Your task to perform on an android device: toggle sleep mode Image 0: 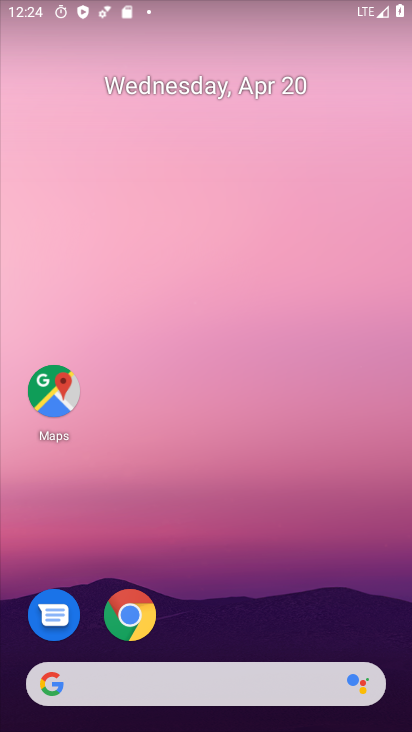
Step 0: drag from (169, 661) to (295, 50)
Your task to perform on an android device: toggle sleep mode Image 1: 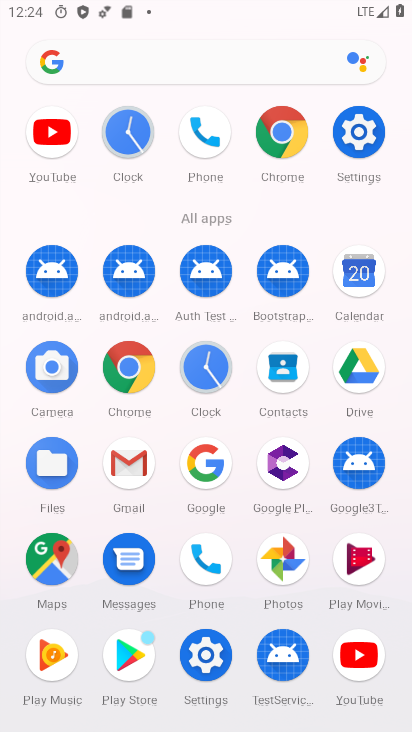
Step 1: click (207, 659)
Your task to perform on an android device: toggle sleep mode Image 2: 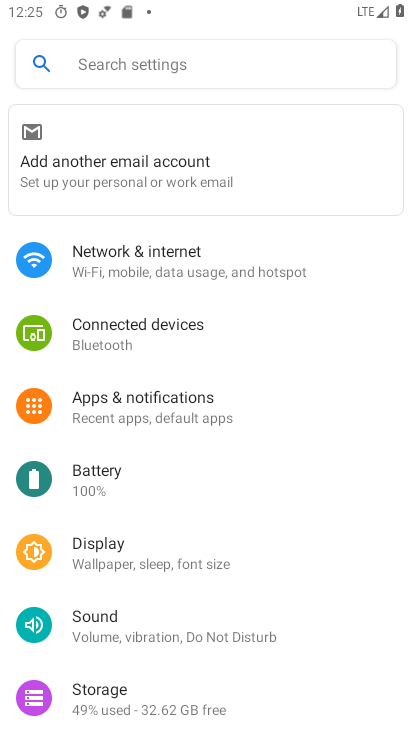
Step 2: click (140, 549)
Your task to perform on an android device: toggle sleep mode Image 3: 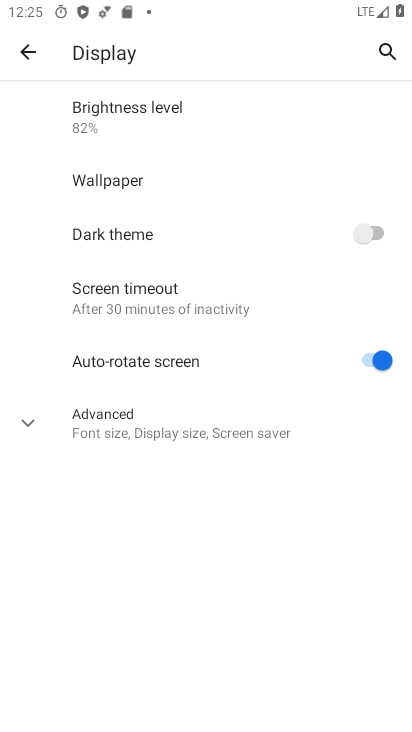
Step 3: click (142, 416)
Your task to perform on an android device: toggle sleep mode Image 4: 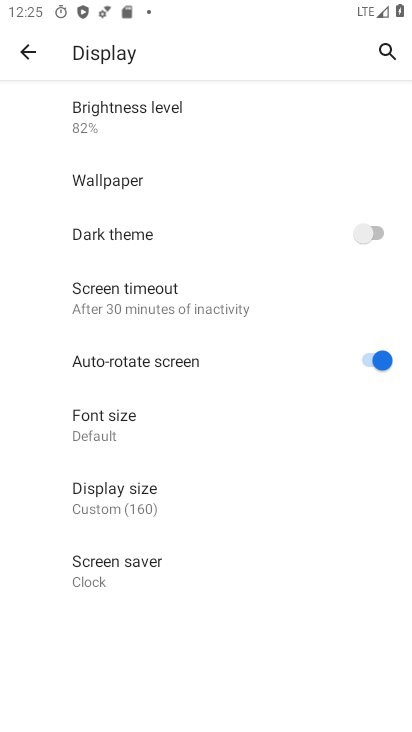
Step 4: task complete